Your task to perform on an android device: Open CNN.com Image 0: 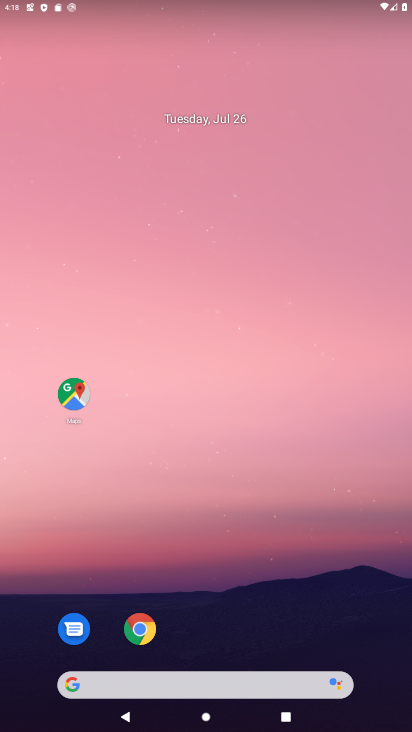
Step 0: click (149, 630)
Your task to perform on an android device: Open CNN.com Image 1: 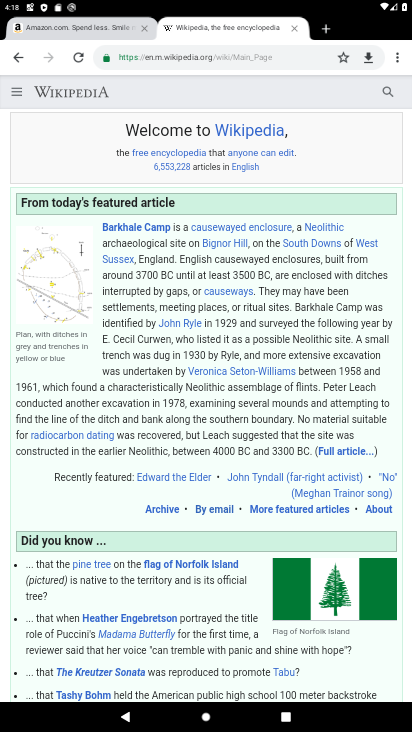
Step 1: click (186, 57)
Your task to perform on an android device: Open CNN.com Image 2: 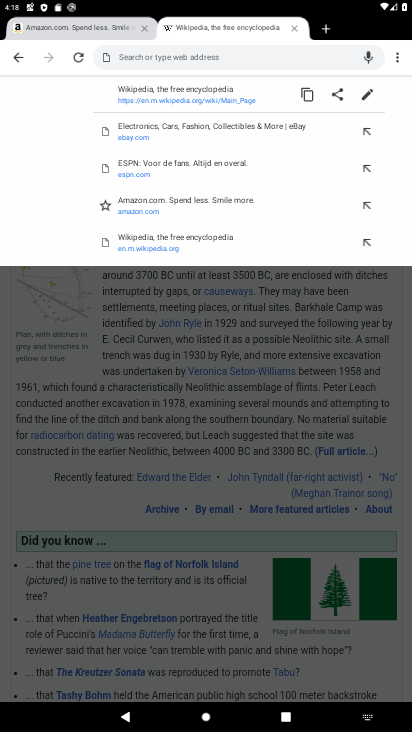
Step 2: type "cnn.com"
Your task to perform on an android device: Open CNN.com Image 3: 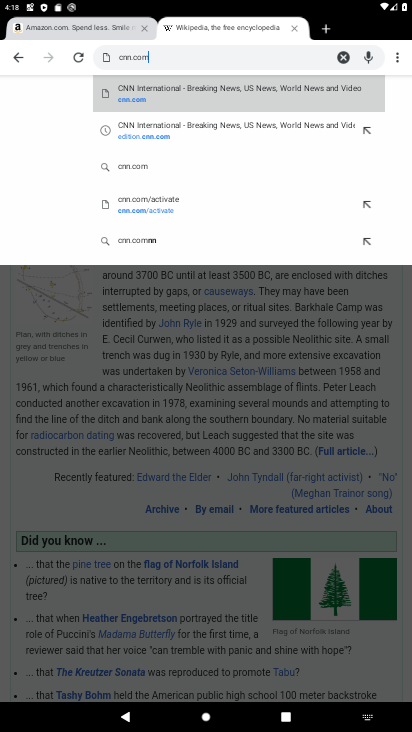
Step 3: click (196, 90)
Your task to perform on an android device: Open CNN.com Image 4: 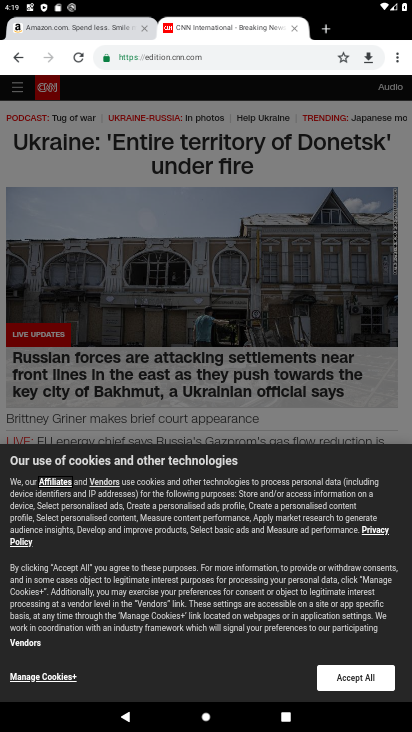
Step 4: task complete